Your task to perform on an android device: Open Google Image 0: 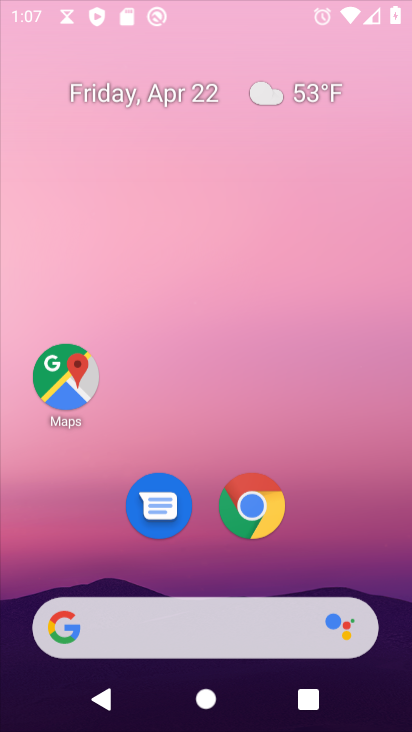
Step 0: click (351, 71)
Your task to perform on an android device: Open Google Image 1: 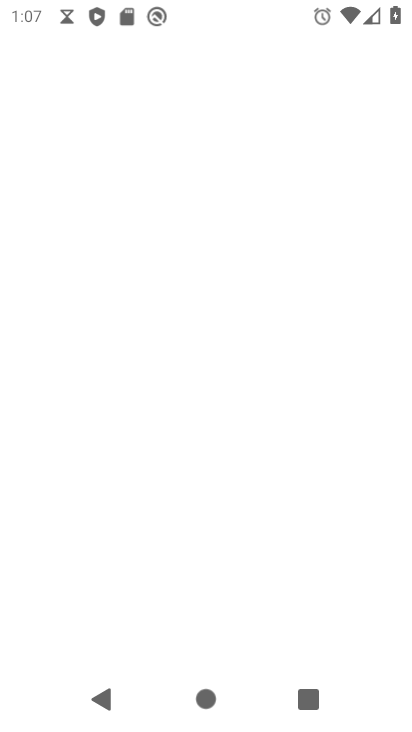
Step 1: press home button
Your task to perform on an android device: Open Google Image 2: 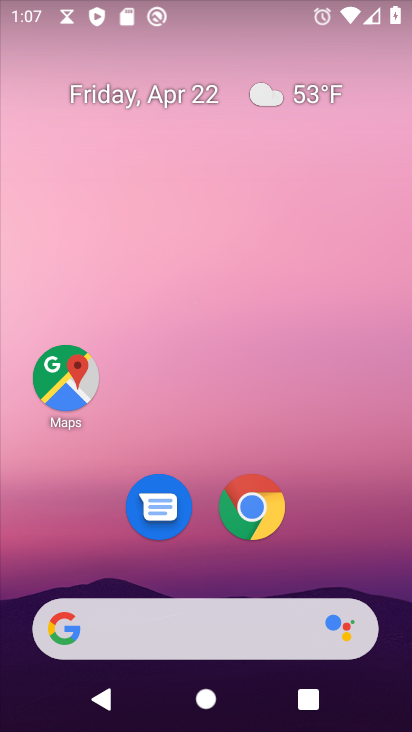
Step 2: drag from (299, 505) to (305, 155)
Your task to perform on an android device: Open Google Image 3: 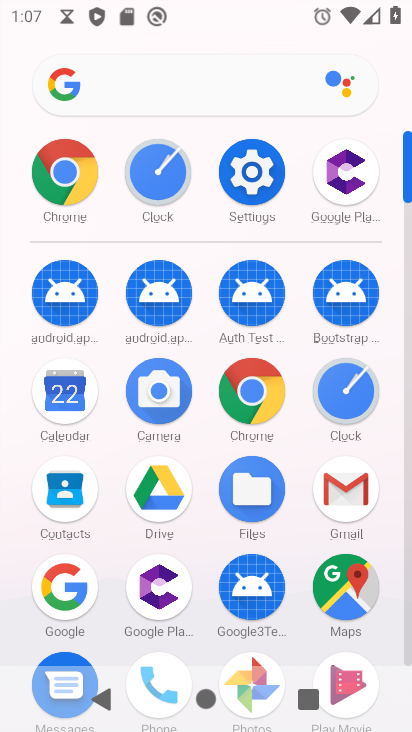
Step 3: click (59, 591)
Your task to perform on an android device: Open Google Image 4: 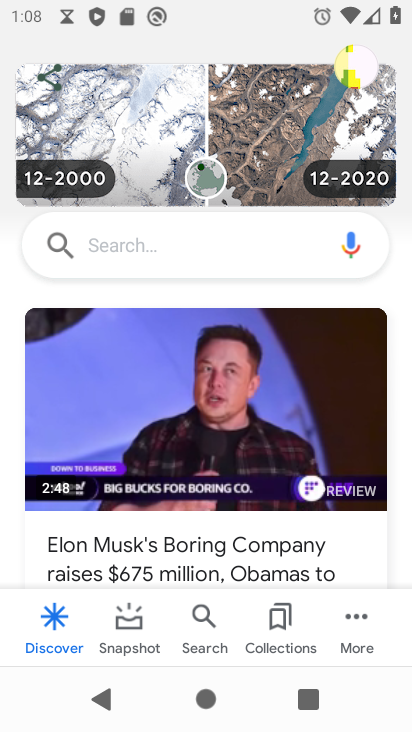
Step 4: task complete